Your task to perform on an android device: delete browsing data in the chrome app Image 0: 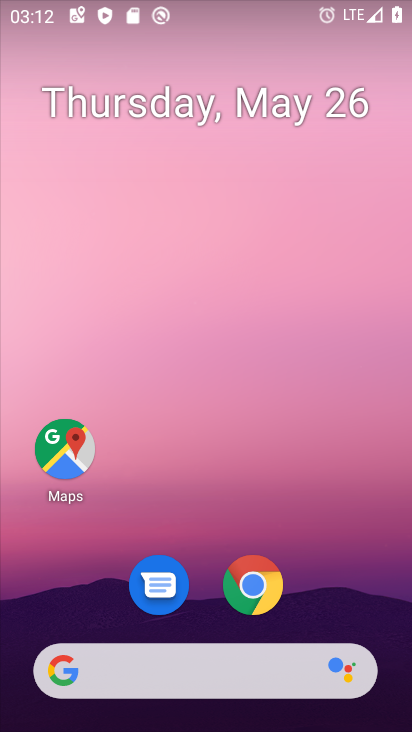
Step 0: click (260, 593)
Your task to perform on an android device: delete browsing data in the chrome app Image 1: 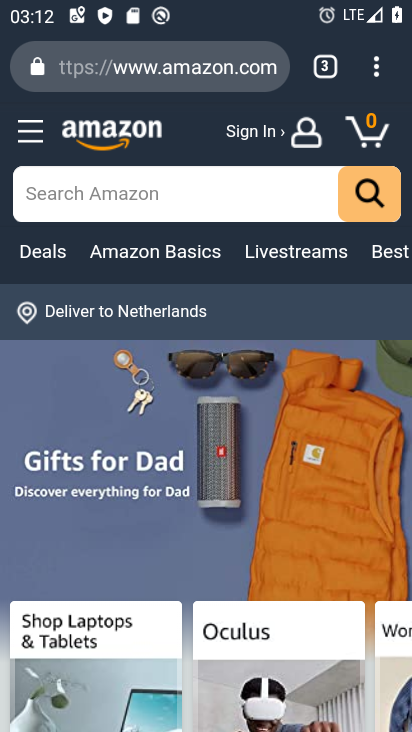
Step 1: click (368, 65)
Your task to perform on an android device: delete browsing data in the chrome app Image 2: 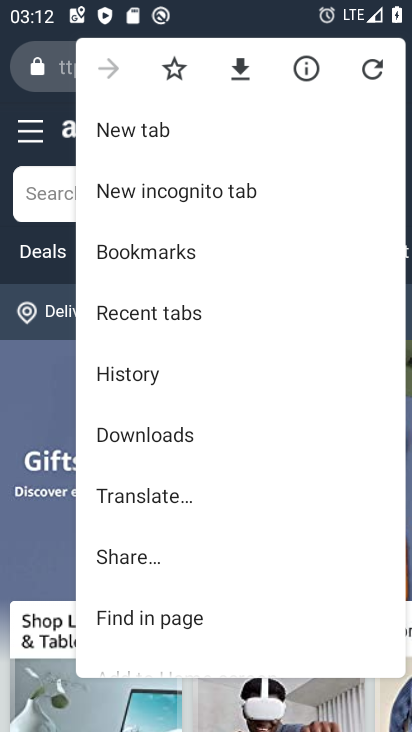
Step 2: drag from (246, 568) to (251, 257)
Your task to perform on an android device: delete browsing data in the chrome app Image 3: 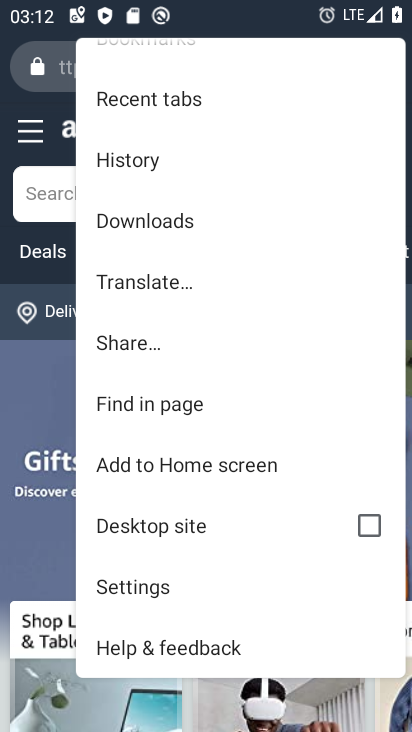
Step 3: click (198, 586)
Your task to perform on an android device: delete browsing data in the chrome app Image 4: 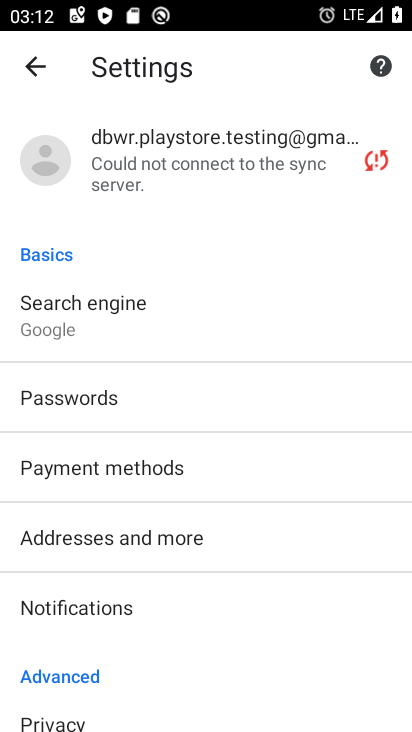
Step 4: drag from (206, 547) to (204, 275)
Your task to perform on an android device: delete browsing data in the chrome app Image 5: 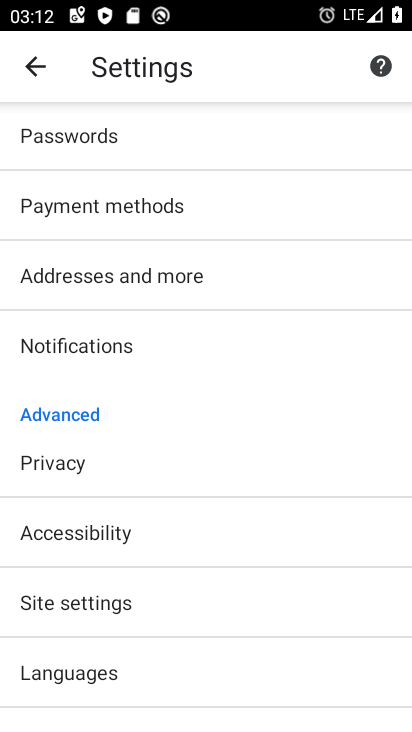
Step 5: click (125, 468)
Your task to perform on an android device: delete browsing data in the chrome app Image 6: 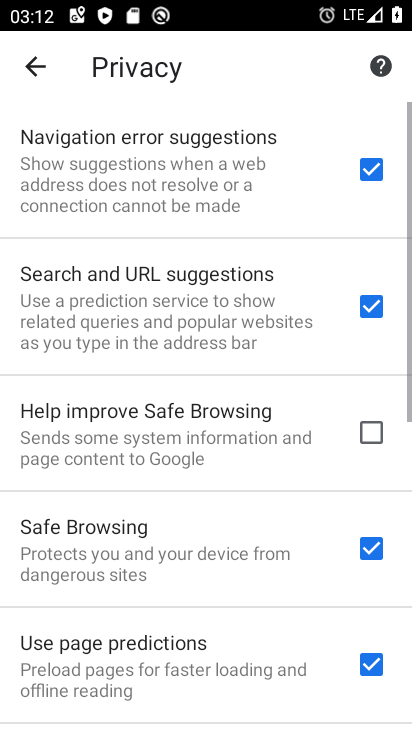
Step 6: drag from (236, 626) to (281, 172)
Your task to perform on an android device: delete browsing data in the chrome app Image 7: 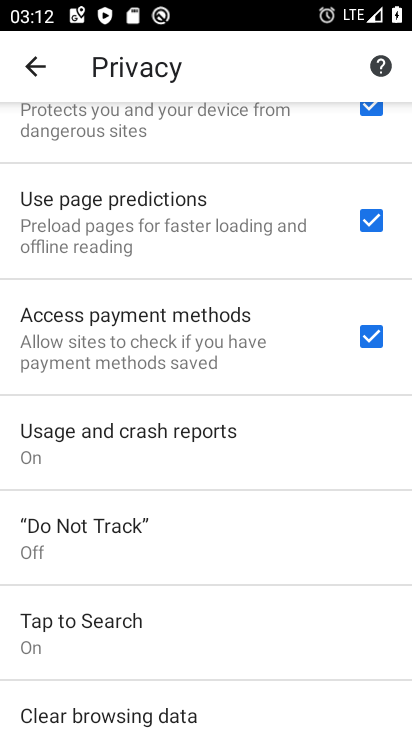
Step 7: drag from (263, 631) to (254, 380)
Your task to perform on an android device: delete browsing data in the chrome app Image 8: 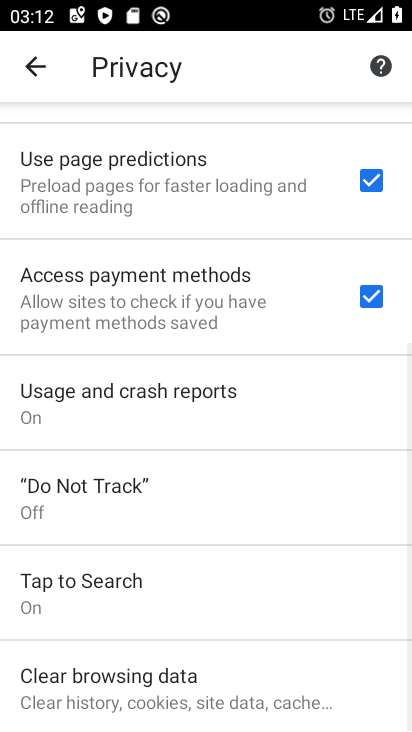
Step 8: click (225, 693)
Your task to perform on an android device: delete browsing data in the chrome app Image 9: 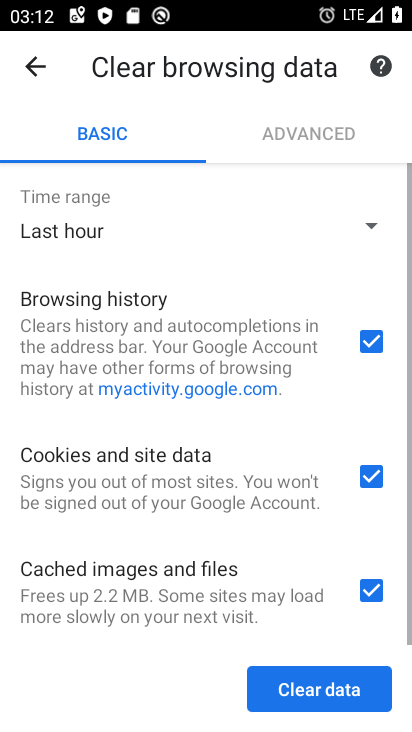
Step 9: click (314, 689)
Your task to perform on an android device: delete browsing data in the chrome app Image 10: 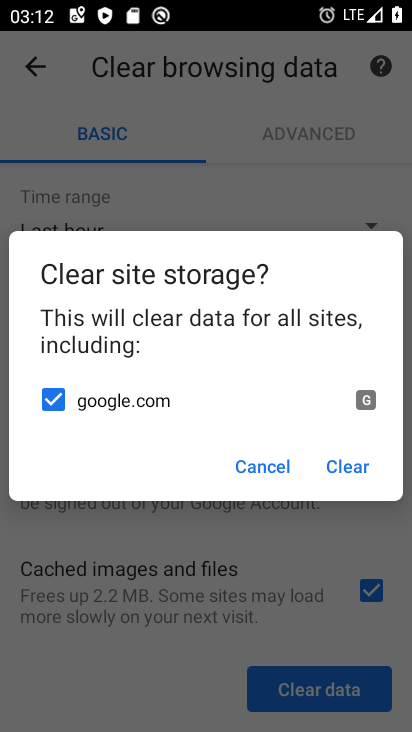
Step 10: click (345, 460)
Your task to perform on an android device: delete browsing data in the chrome app Image 11: 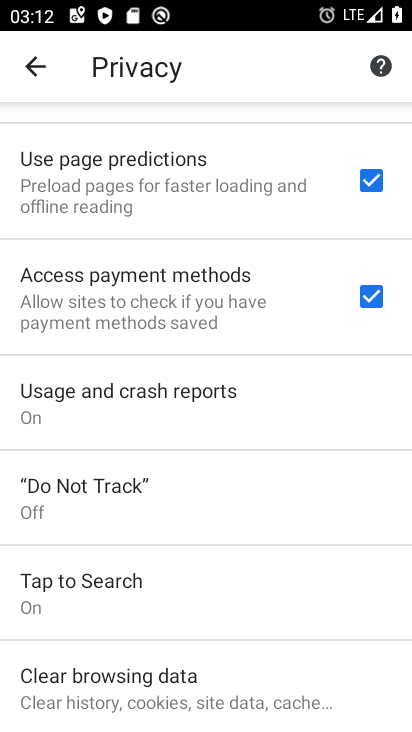
Step 11: task complete